Your task to perform on an android device: Open wifi settings Image 0: 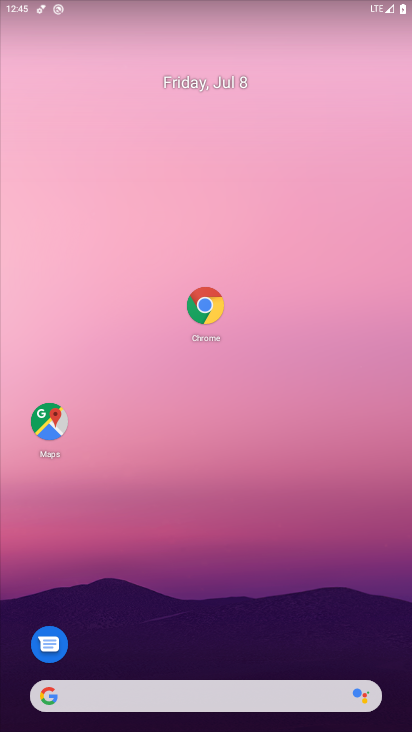
Step 0: drag from (228, 696) to (249, 314)
Your task to perform on an android device: Open wifi settings Image 1: 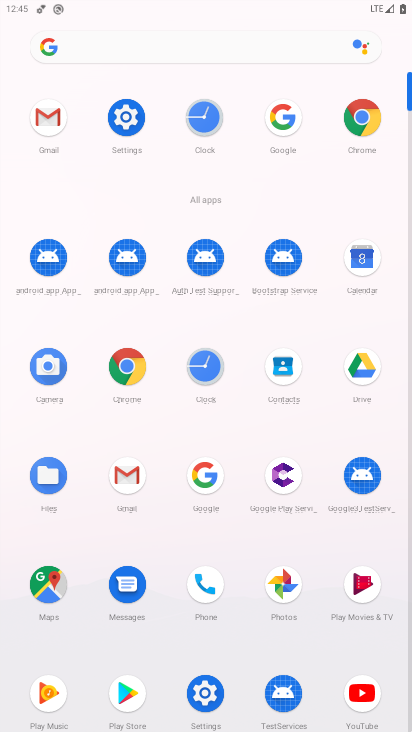
Step 1: click (122, 115)
Your task to perform on an android device: Open wifi settings Image 2: 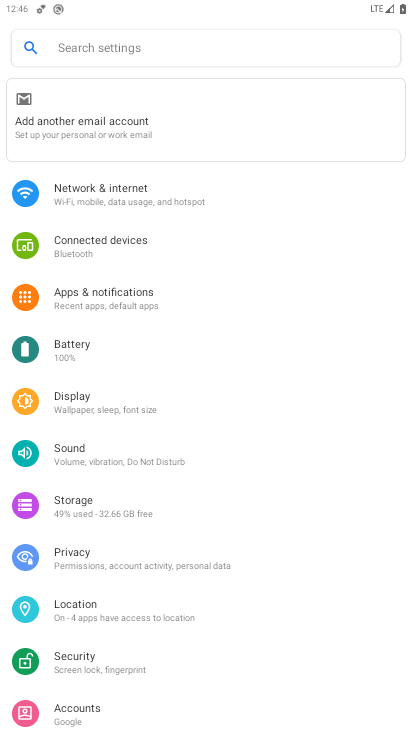
Step 2: click (96, 195)
Your task to perform on an android device: Open wifi settings Image 3: 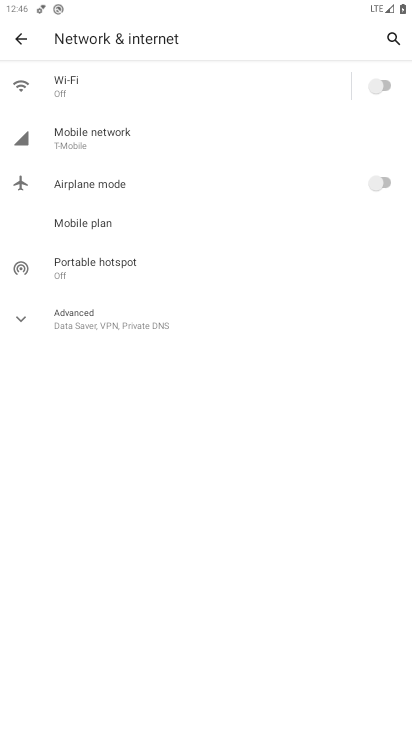
Step 3: click (71, 84)
Your task to perform on an android device: Open wifi settings Image 4: 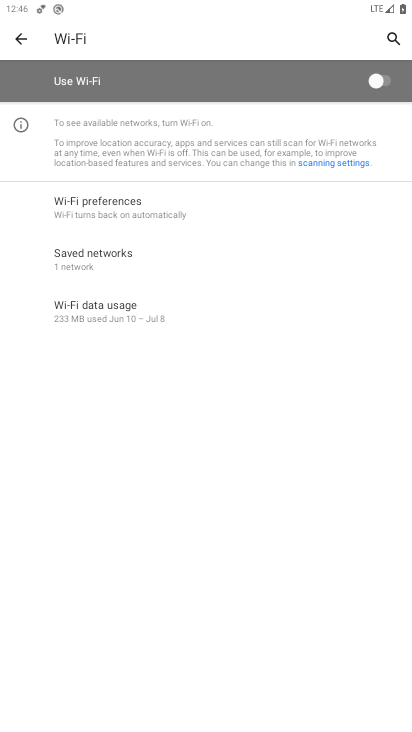
Step 4: click (385, 78)
Your task to perform on an android device: Open wifi settings Image 5: 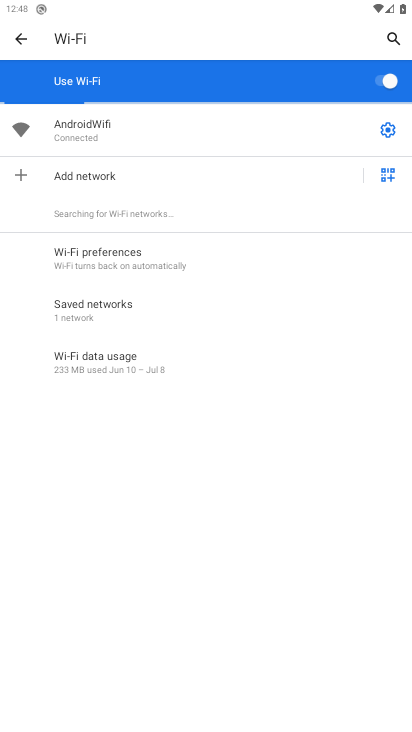
Step 5: click (387, 128)
Your task to perform on an android device: Open wifi settings Image 6: 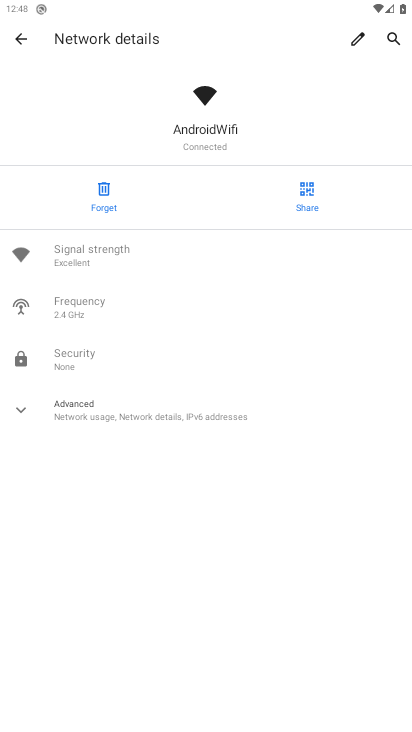
Step 6: click (92, 413)
Your task to perform on an android device: Open wifi settings Image 7: 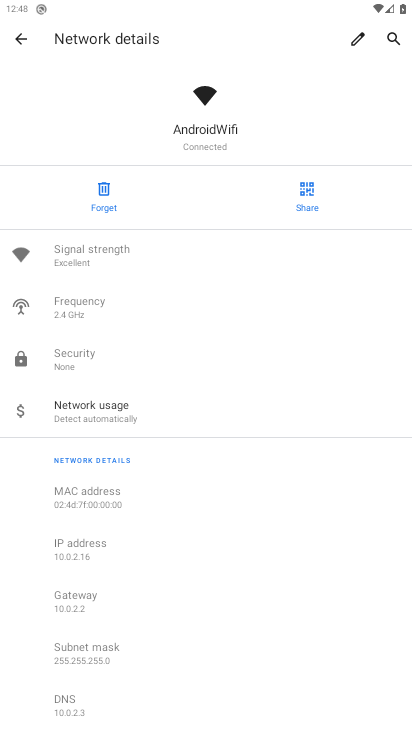
Step 7: task complete